Your task to perform on an android device: Open Youtube and go to "Your channel" Image 0: 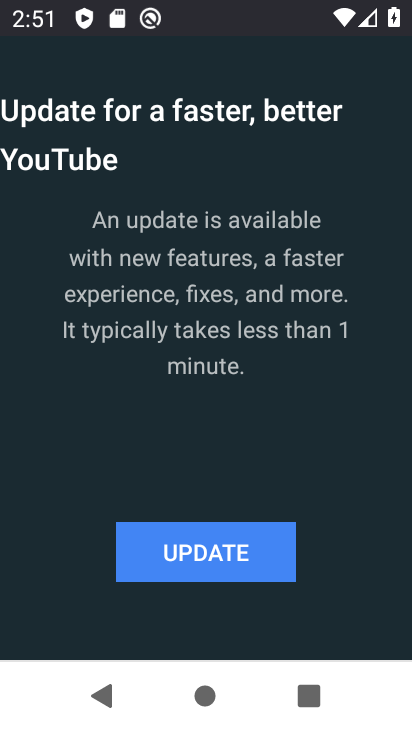
Step 0: press home button
Your task to perform on an android device: Open Youtube and go to "Your channel" Image 1: 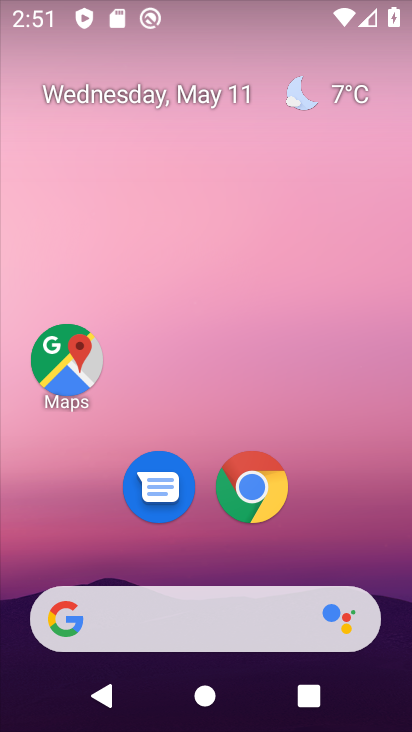
Step 1: drag from (193, 628) to (326, 101)
Your task to perform on an android device: Open Youtube and go to "Your channel" Image 2: 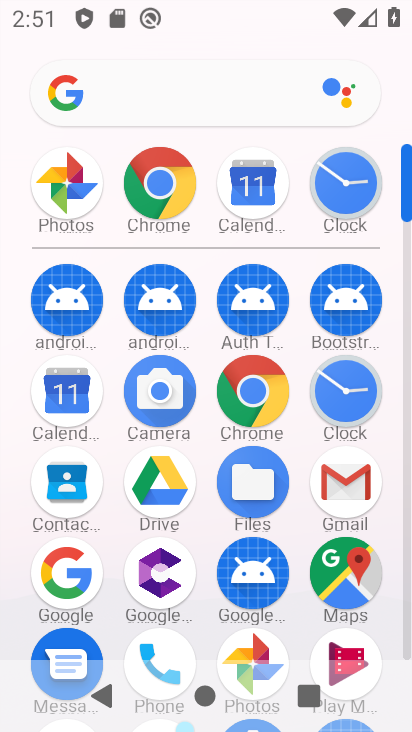
Step 2: drag from (301, 634) to (321, 210)
Your task to perform on an android device: Open Youtube and go to "Your channel" Image 3: 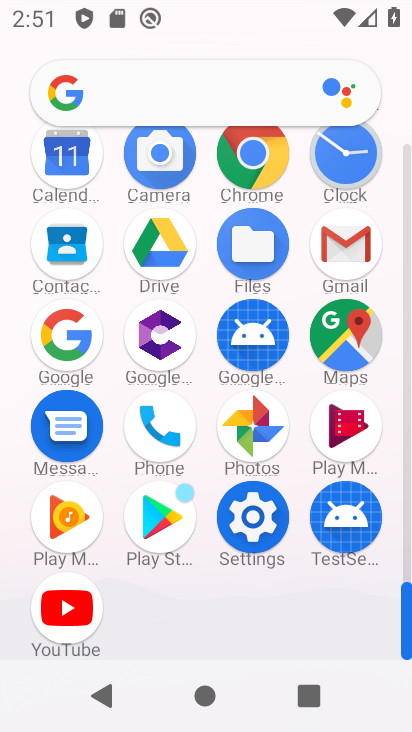
Step 3: click (78, 614)
Your task to perform on an android device: Open Youtube and go to "Your channel" Image 4: 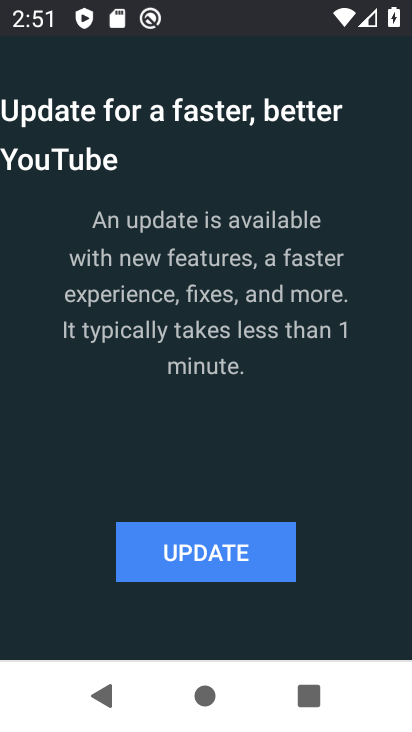
Step 4: click (231, 567)
Your task to perform on an android device: Open Youtube and go to "Your channel" Image 5: 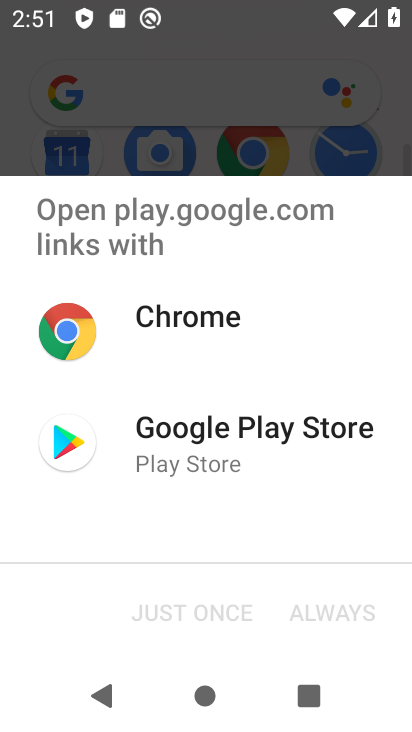
Step 5: click (201, 445)
Your task to perform on an android device: Open Youtube and go to "Your channel" Image 6: 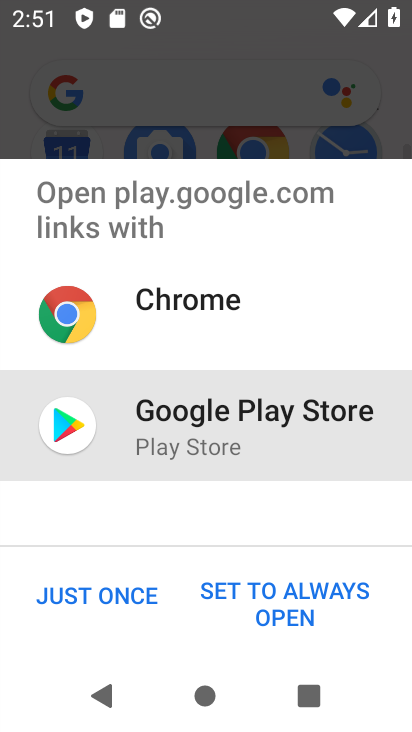
Step 6: click (125, 597)
Your task to perform on an android device: Open Youtube and go to "Your channel" Image 7: 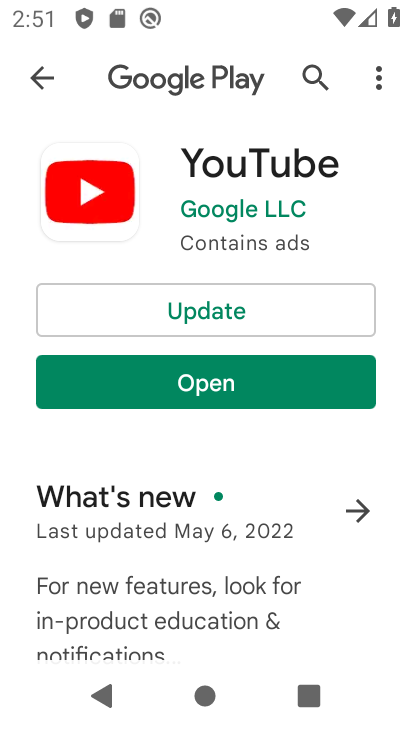
Step 7: click (235, 312)
Your task to perform on an android device: Open Youtube and go to "Your channel" Image 8: 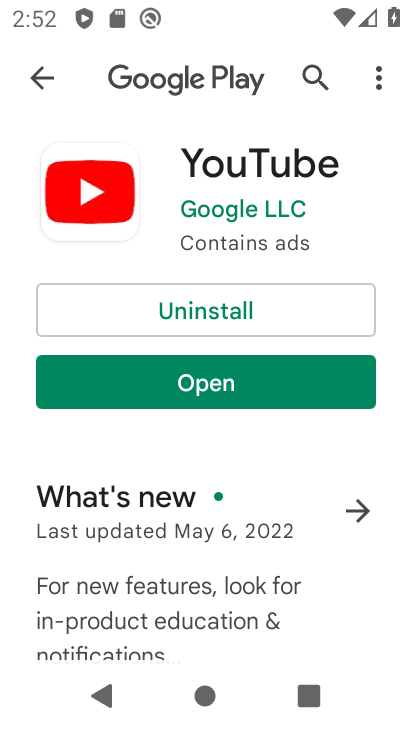
Step 8: click (238, 378)
Your task to perform on an android device: Open Youtube and go to "Your channel" Image 9: 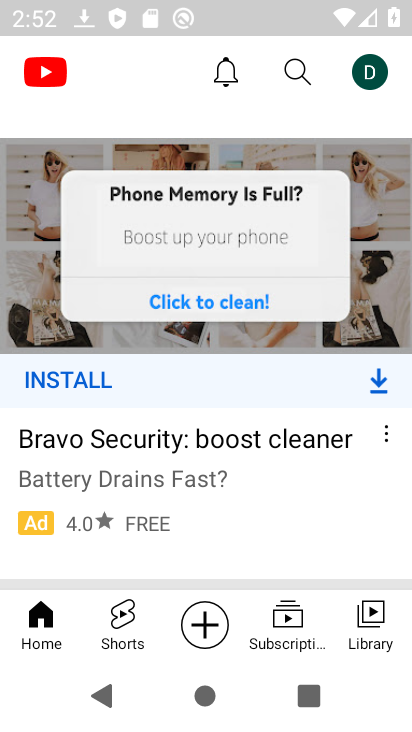
Step 9: click (361, 73)
Your task to perform on an android device: Open Youtube and go to "Your channel" Image 10: 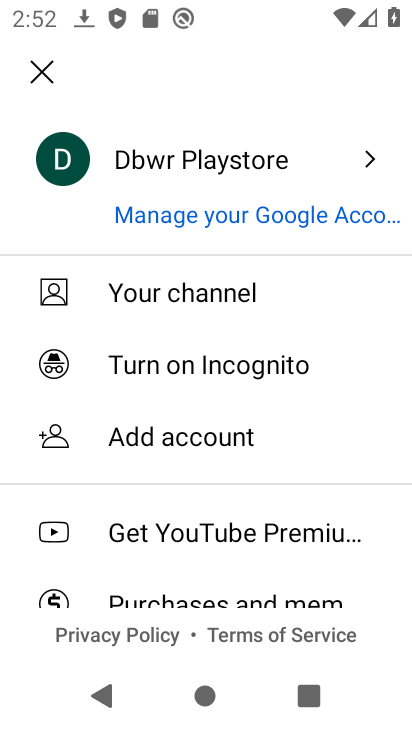
Step 10: click (233, 289)
Your task to perform on an android device: Open Youtube and go to "Your channel" Image 11: 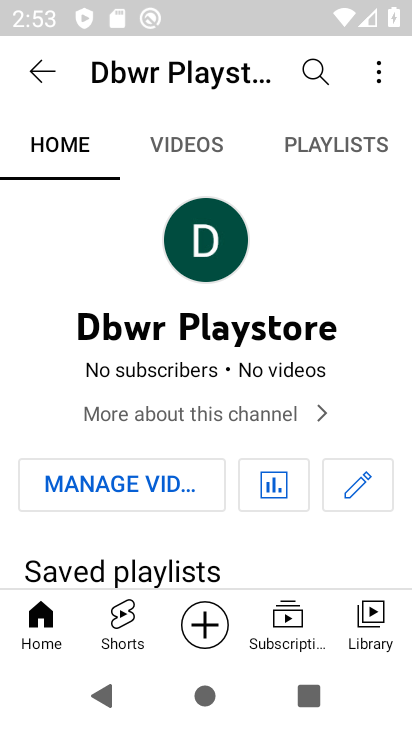
Step 11: task complete